Your task to perform on an android device: Show me popular videos on Youtube Image 0: 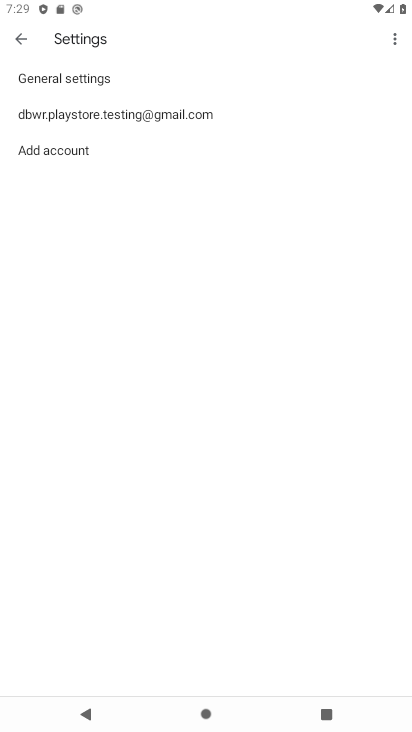
Step 0: press home button
Your task to perform on an android device: Show me popular videos on Youtube Image 1: 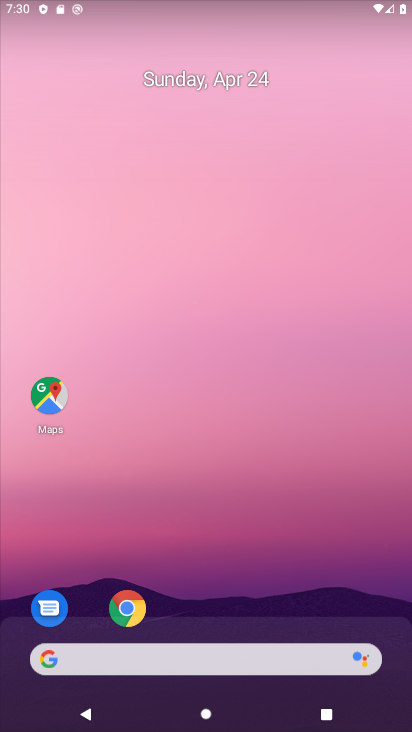
Step 1: drag from (250, 169) to (250, 91)
Your task to perform on an android device: Show me popular videos on Youtube Image 2: 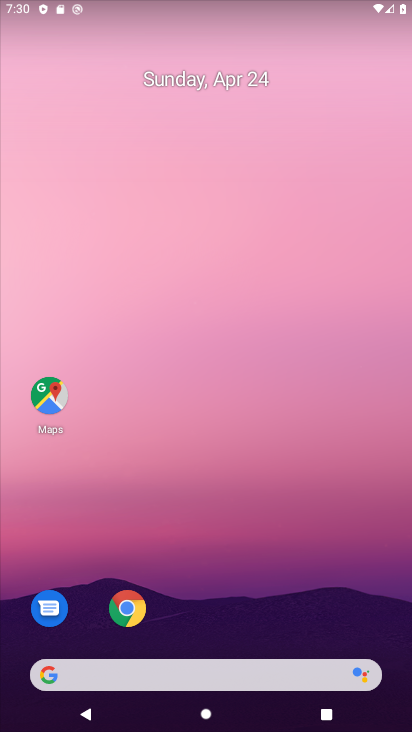
Step 2: drag from (249, 489) to (238, 46)
Your task to perform on an android device: Show me popular videos on Youtube Image 3: 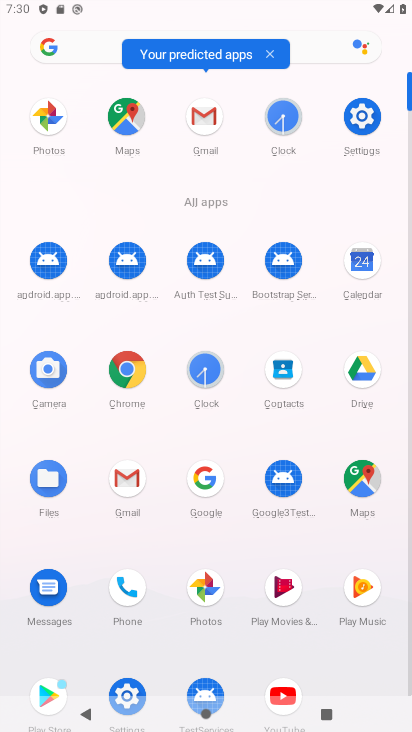
Step 3: click (284, 697)
Your task to perform on an android device: Show me popular videos on Youtube Image 4: 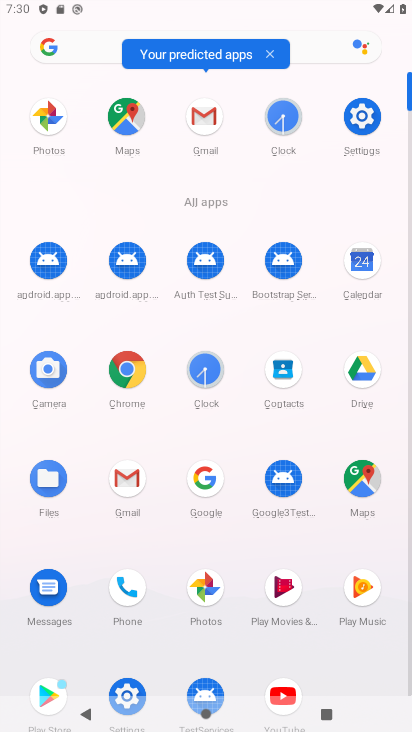
Step 4: click (284, 695)
Your task to perform on an android device: Show me popular videos on Youtube Image 5: 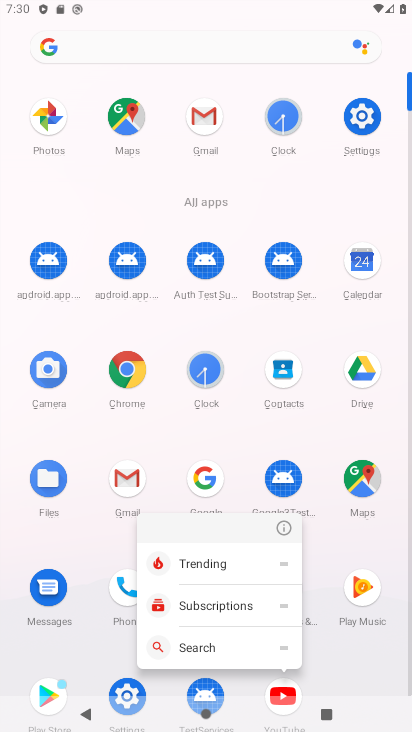
Step 5: click (290, 692)
Your task to perform on an android device: Show me popular videos on Youtube Image 6: 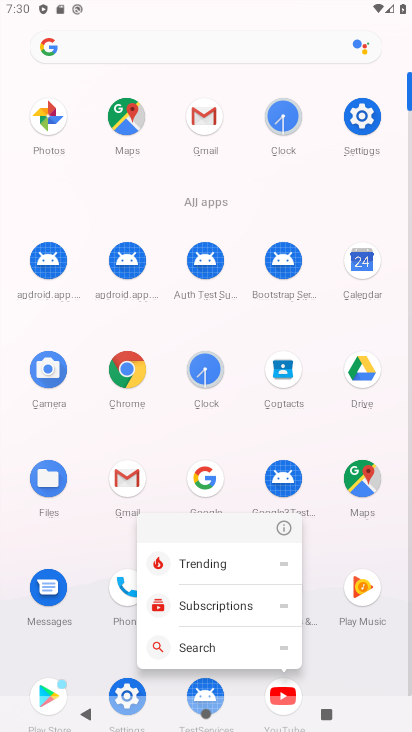
Step 6: drag from (335, 584) to (327, 466)
Your task to perform on an android device: Show me popular videos on Youtube Image 7: 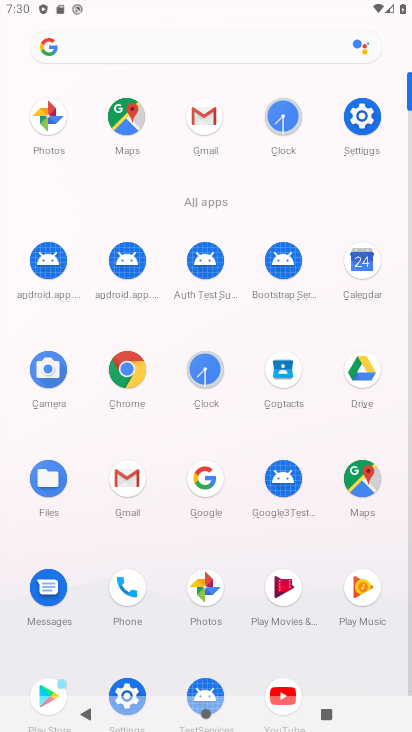
Step 7: click (286, 695)
Your task to perform on an android device: Show me popular videos on Youtube Image 8: 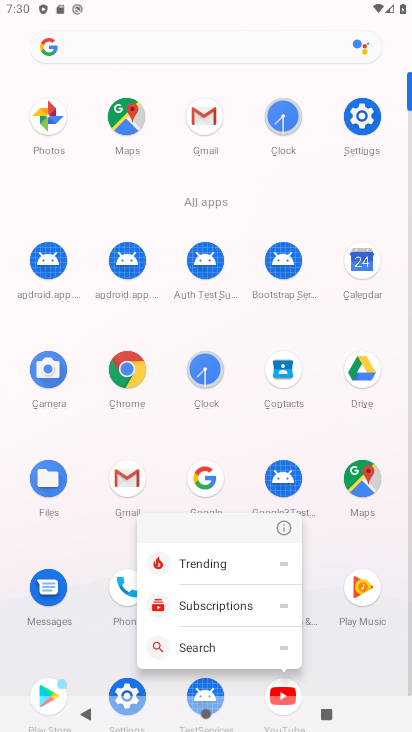
Step 8: click (275, 695)
Your task to perform on an android device: Show me popular videos on Youtube Image 9: 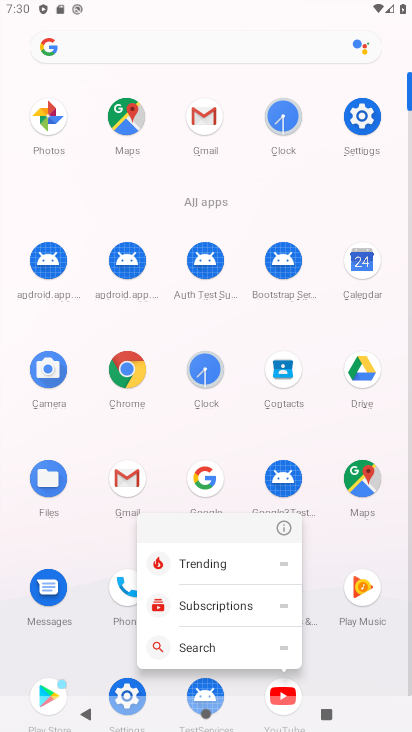
Step 9: click (286, 696)
Your task to perform on an android device: Show me popular videos on Youtube Image 10: 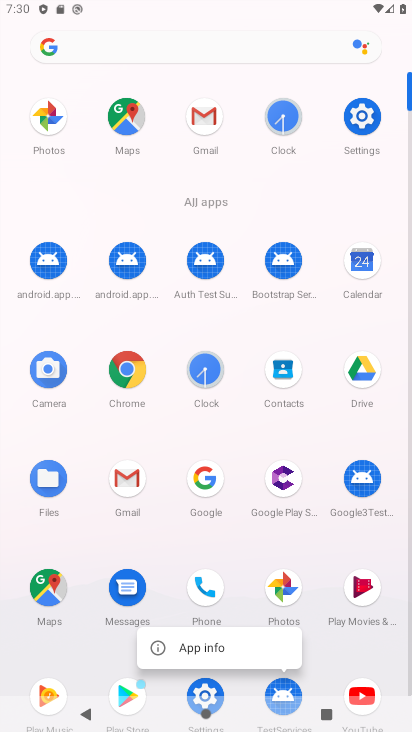
Step 10: click (361, 698)
Your task to perform on an android device: Show me popular videos on Youtube Image 11: 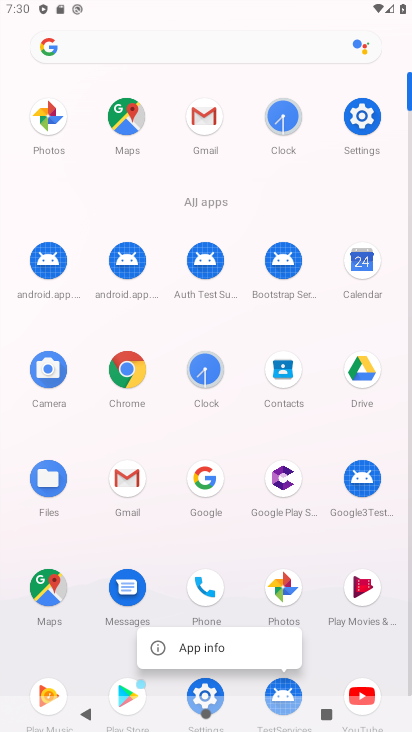
Step 11: click (362, 694)
Your task to perform on an android device: Show me popular videos on Youtube Image 12: 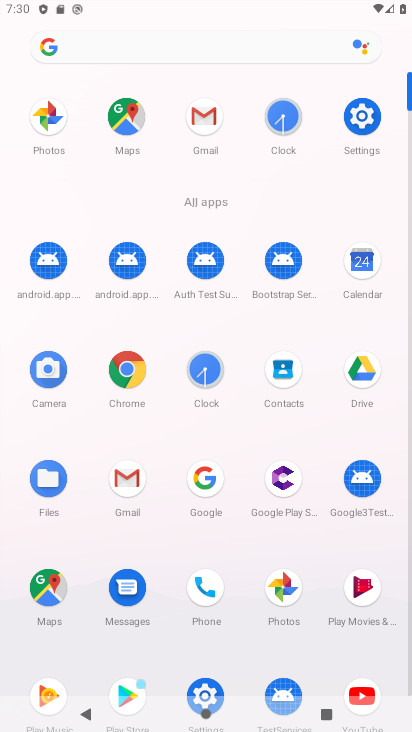
Step 12: click (361, 692)
Your task to perform on an android device: Show me popular videos on Youtube Image 13: 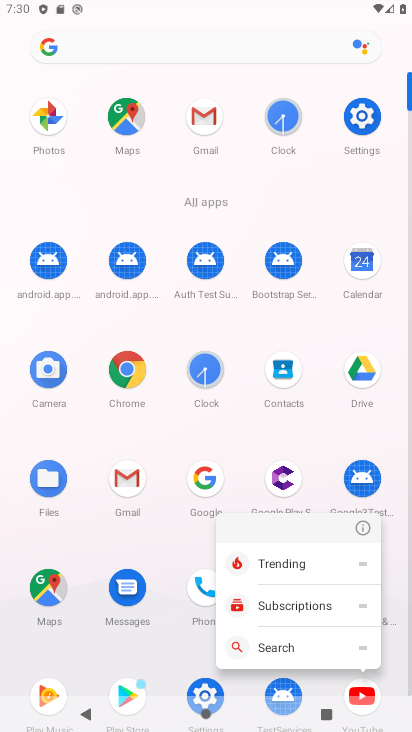
Step 13: click (361, 689)
Your task to perform on an android device: Show me popular videos on Youtube Image 14: 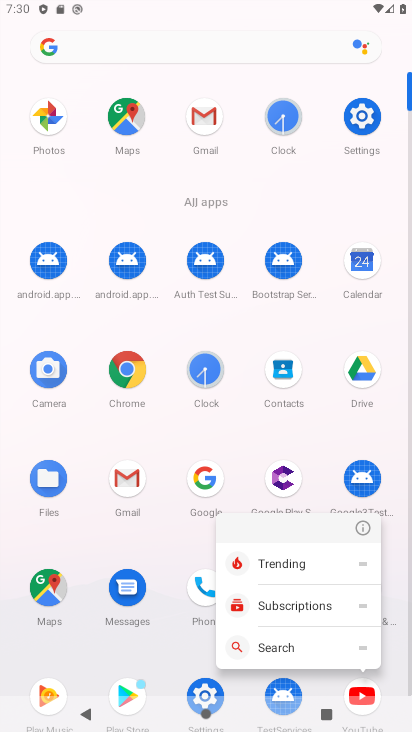
Step 14: click (388, 658)
Your task to perform on an android device: Show me popular videos on Youtube Image 15: 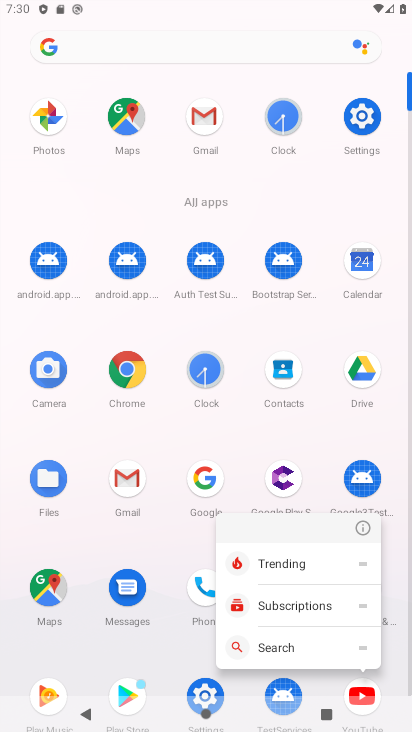
Step 15: click (363, 698)
Your task to perform on an android device: Show me popular videos on Youtube Image 16: 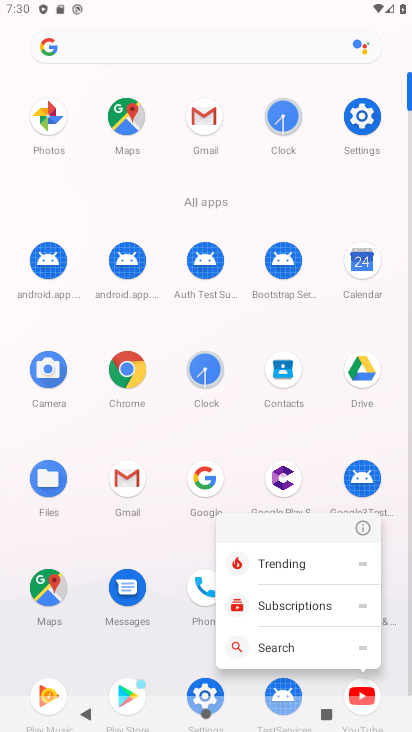
Step 16: click (326, 678)
Your task to perform on an android device: Show me popular videos on Youtube Image 17: 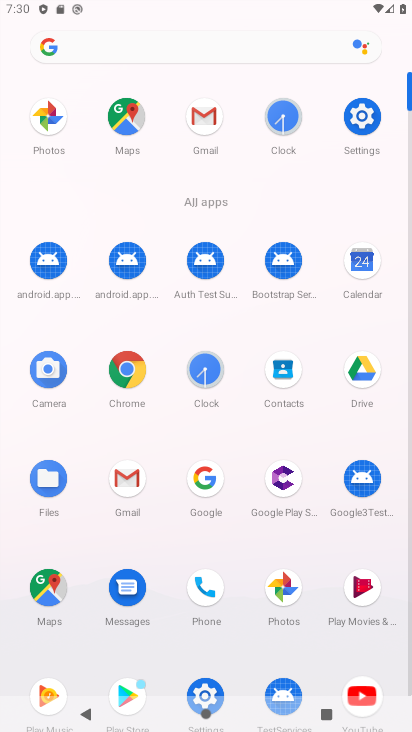
Step 17: click (367, 699)
Your task to perform on an android device: Show me popular videos on Youtube Image 18: 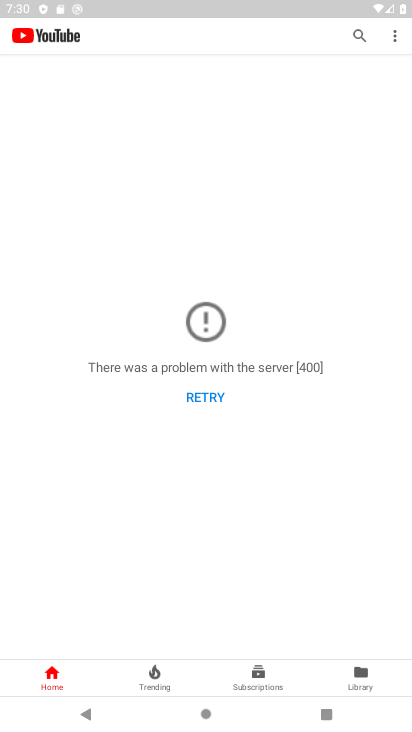
Step 18: click (143, 681)
Your task to perform on an android device: Show me popular videos on Youtube Image 19: 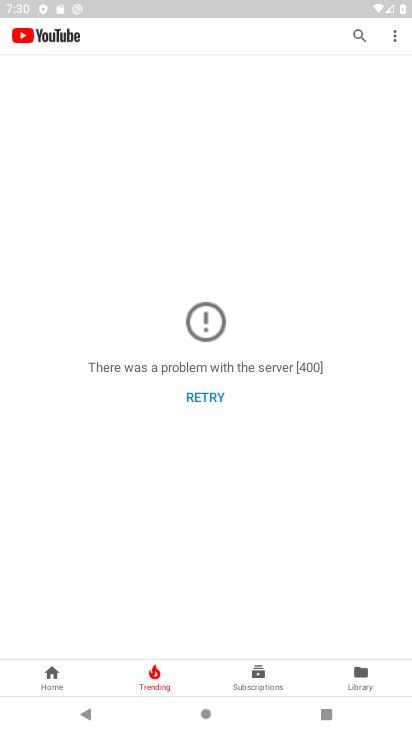
Step 19: task complete